Your task to perform on an android device: turn on the 12-hour format for clock Image 0: 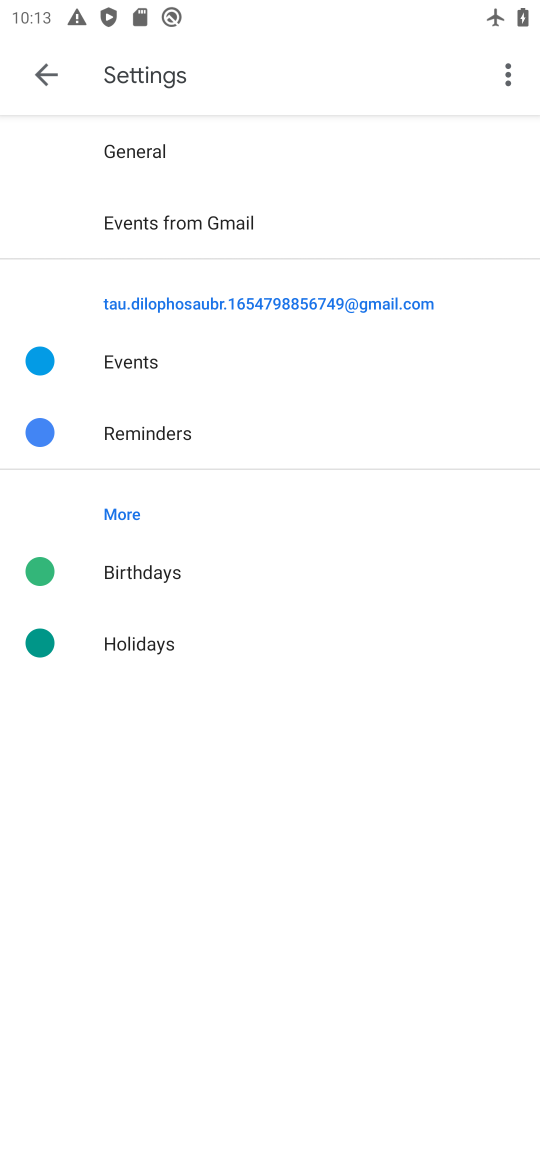
Step 0: press home button
Your task to perform on an android device: turn on the 12-hour format for clock Image 1: 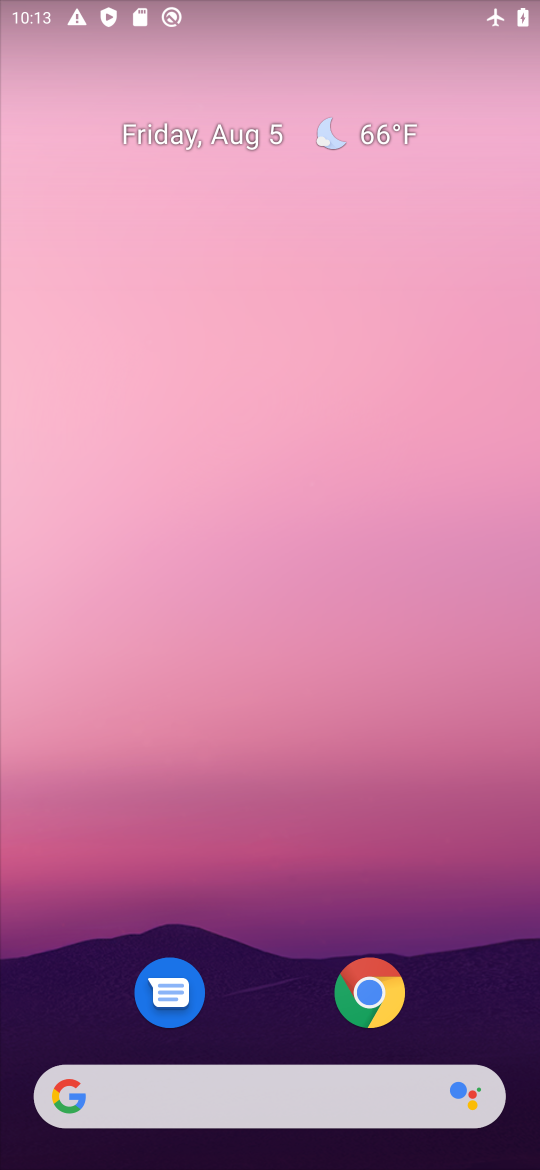
Step 1: drag from (269, 1044) to (361, 194)
Your task to perform on an android device: turn on the 12-hour format for clock Image 2: 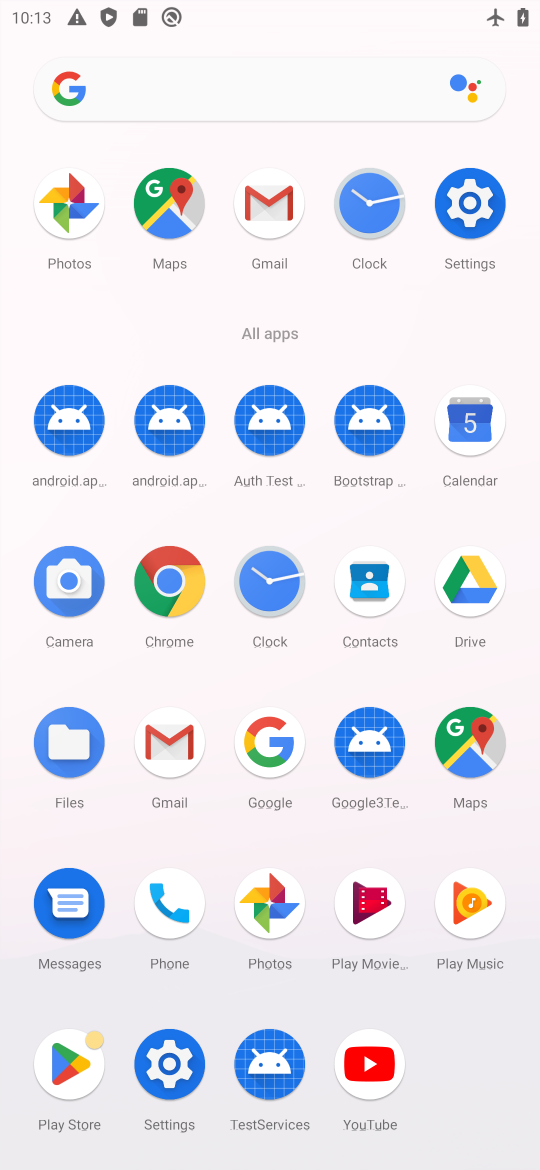
Step 2: click (388, 212)
Your task to perform on an android device: turn on the 12-hour format for clock Image 3: 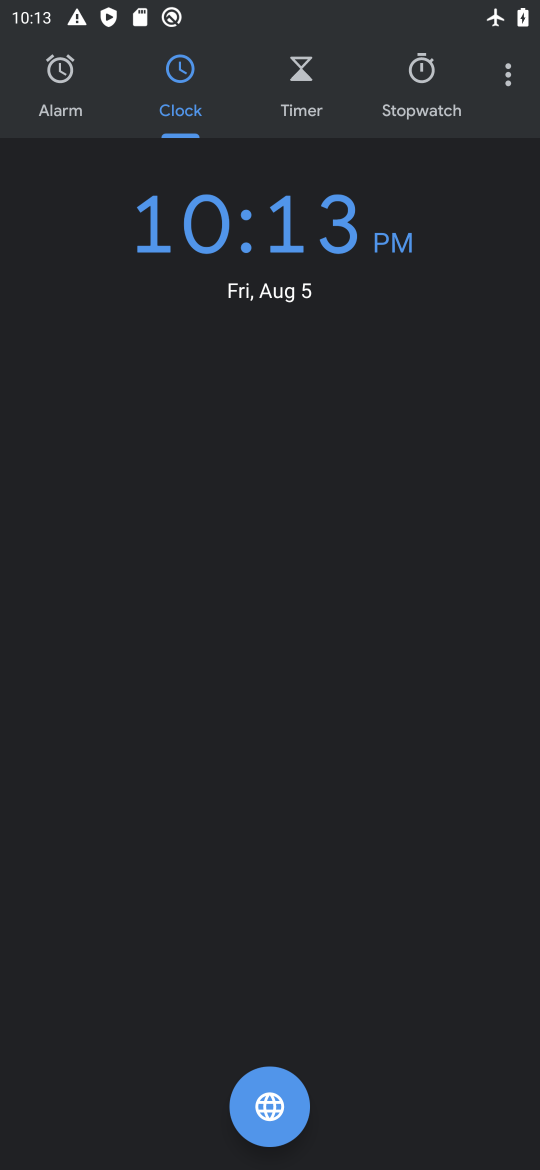
Step 3: click (510, 101)
Your task to perform on an android device: turn on the 12-hour format for clock Image 4: 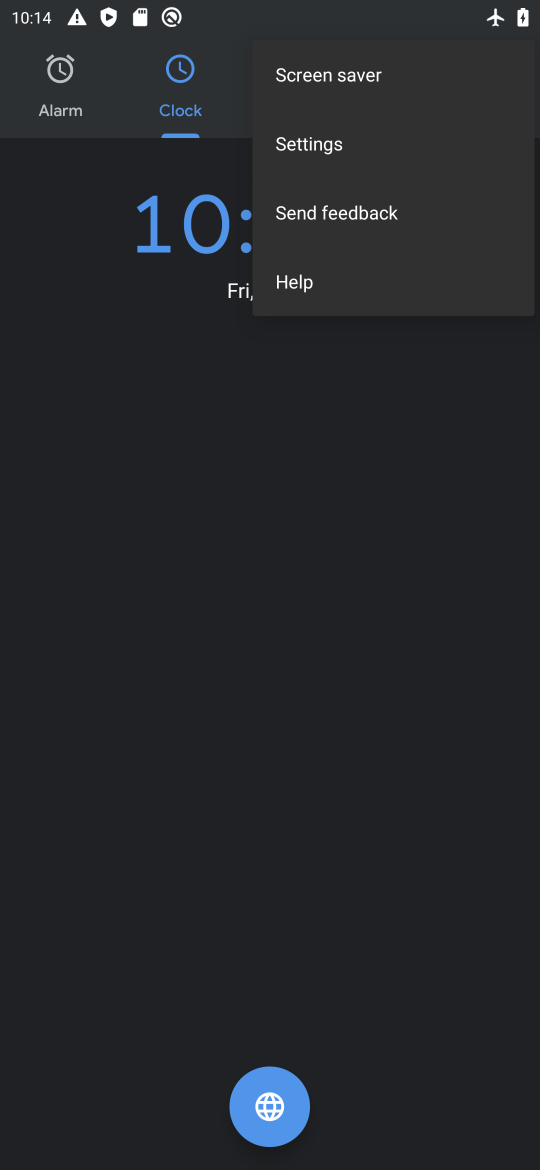
Step 4: click (351, 158)
Your task to perform on an android device: turn on the 12-hour format for clock Image 5: 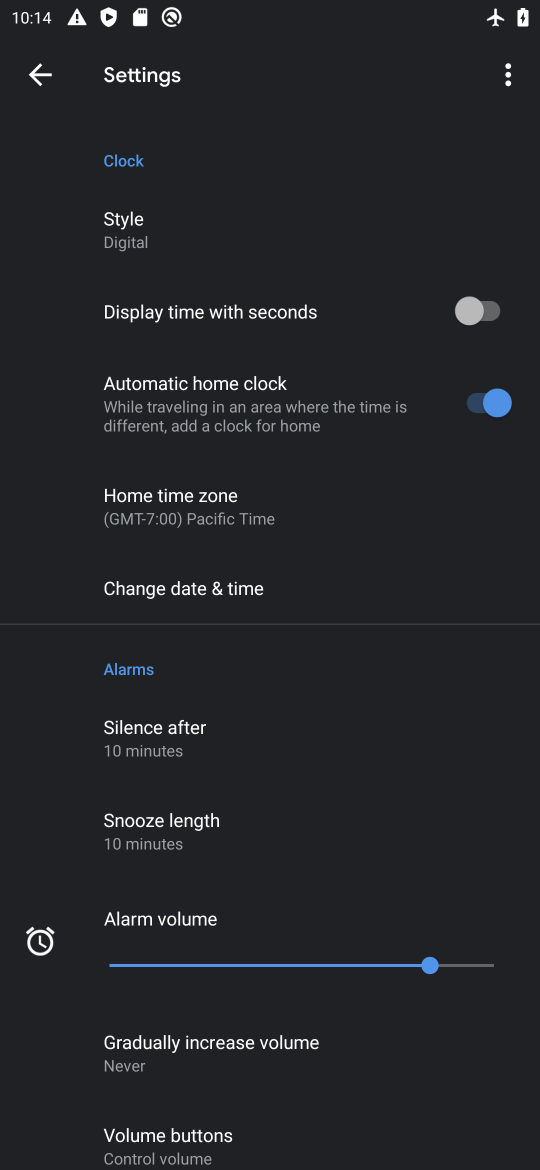
Step 5: click (228, 600)
Your task to perform on an android device: turn on the 12-hour format for clock Image 6: 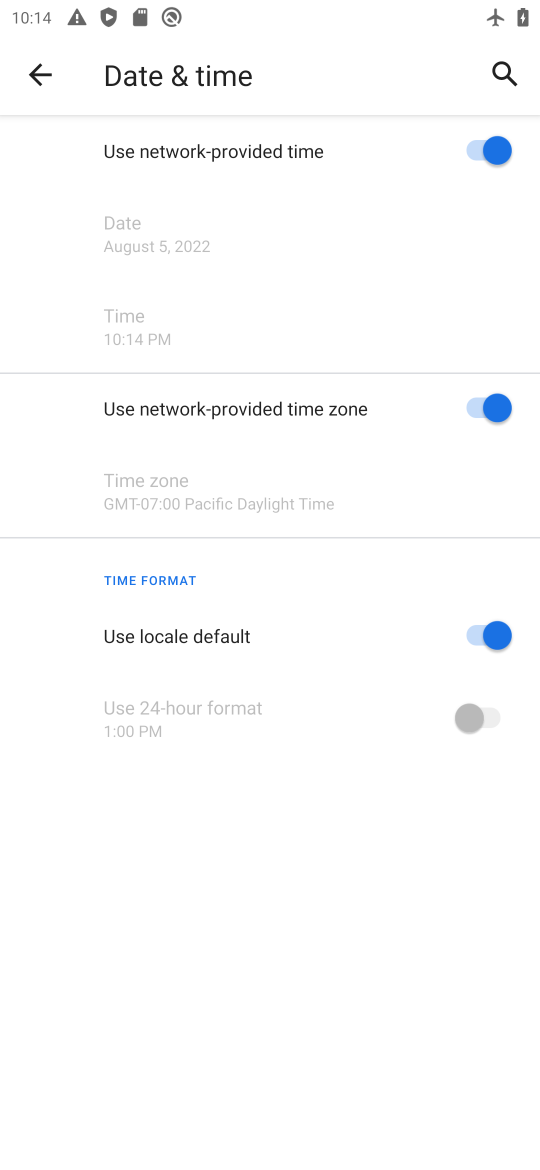
Step 6: task complete